Your task to perform on an android device: all mails in gmail Image 0: 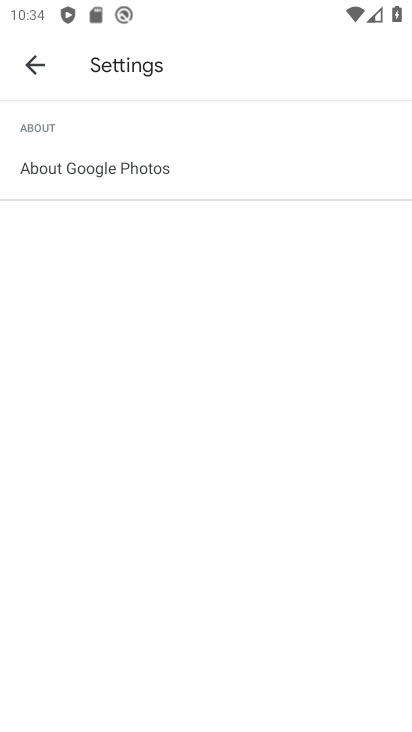
Step 0: click (34, 64)
Your task to perform on an android device: all mails in gmail Image 1: 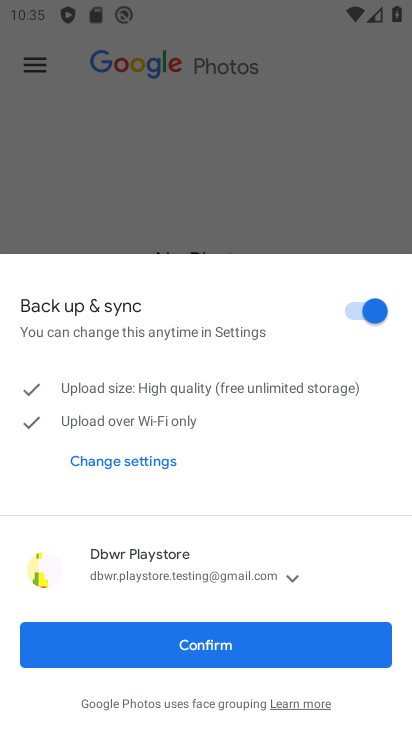
Step 1: press back button
Your task to perform on an android device: all mails in gmail Image 2: 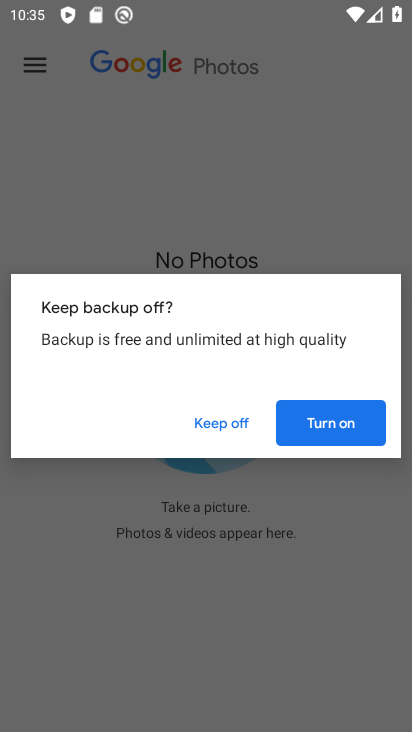
Step 2: press back button
Your task to perform on an android device: all mails in gmail Image 3: 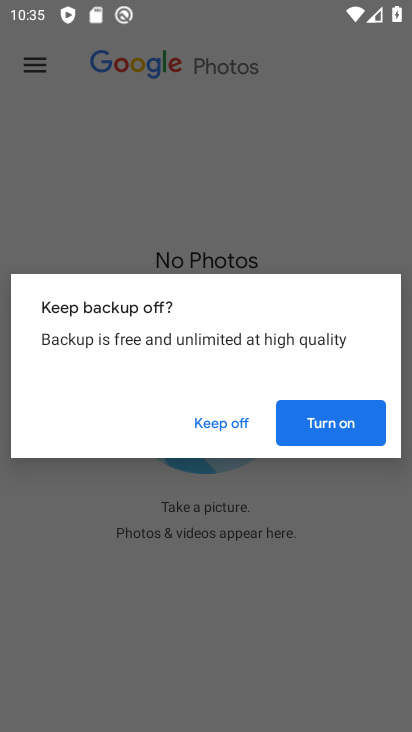
Step 3: press home button
Your task to perform on an android device: all mails in gmail Image 4: 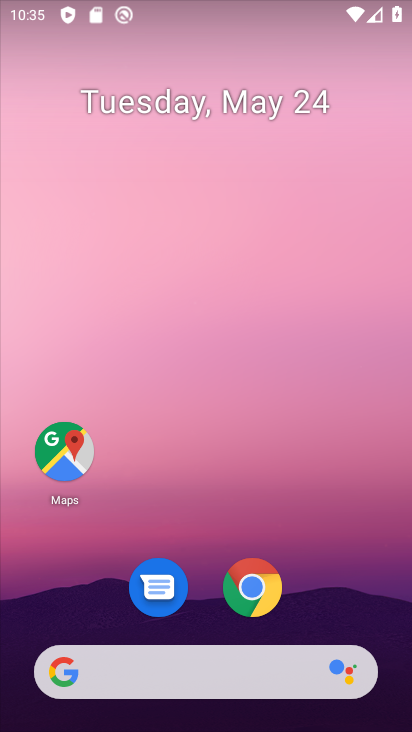
Step 4: drag from (328, 589) to (245, 52)
Your task to perform on an android device: all mails in gmail Image 5: 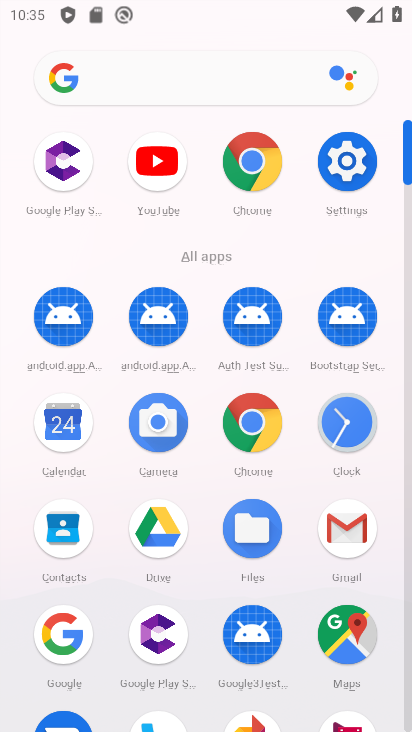
Step 5: drag from (16, 567) to (9, 210)
Your task to perform on an android device: all mails in gmail Image 6: 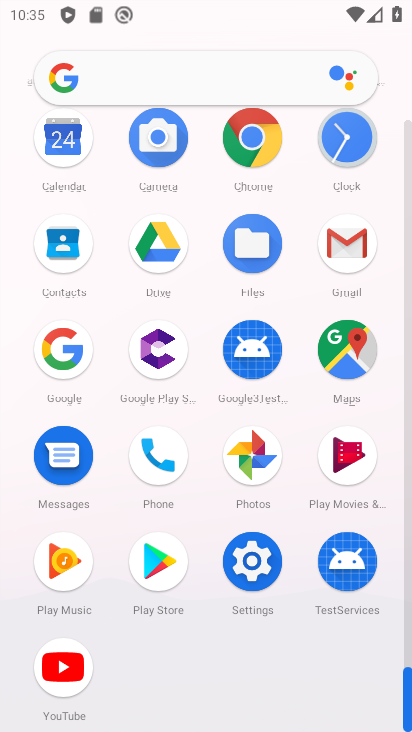
Step 6: click (347, 230)
Your task to perform on an android device: all mails in gmail Image 7: 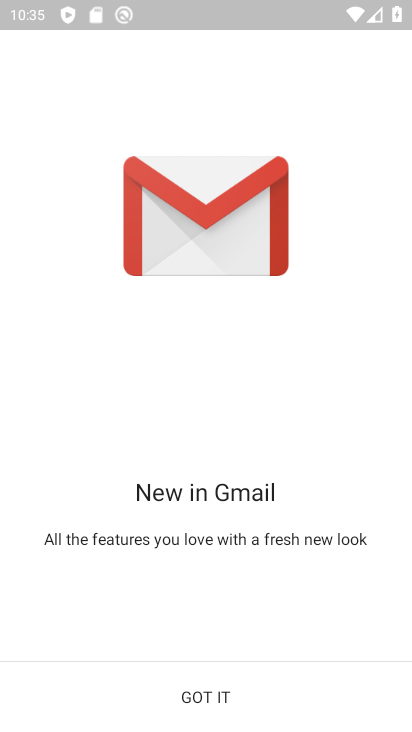
Step 7: click (209, 696)
Your task to perform on an android device: all mails in gmail Image 8: 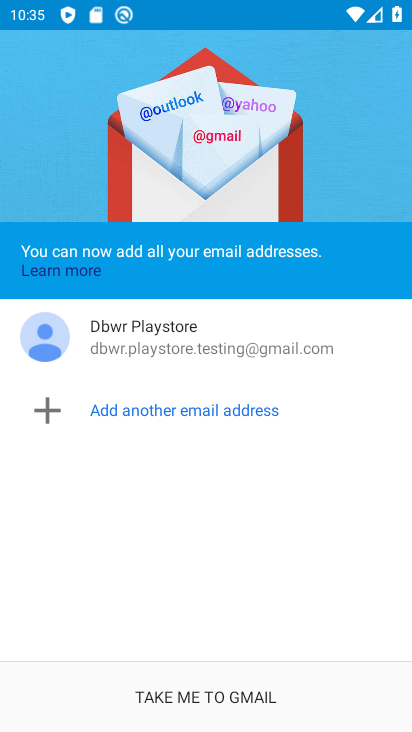
Step 8: click (184, 696)
Your task to perform on an android device: all mails in gmail Image 9: 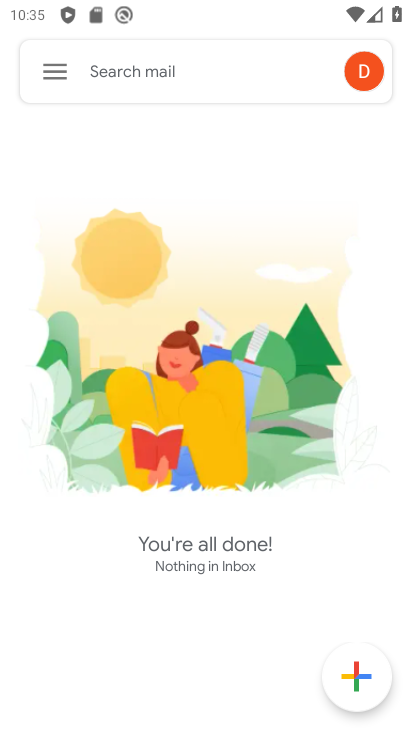
Step 9: click (57, 63)
Your task to perform on an android device: all mails in gmail Image 10: 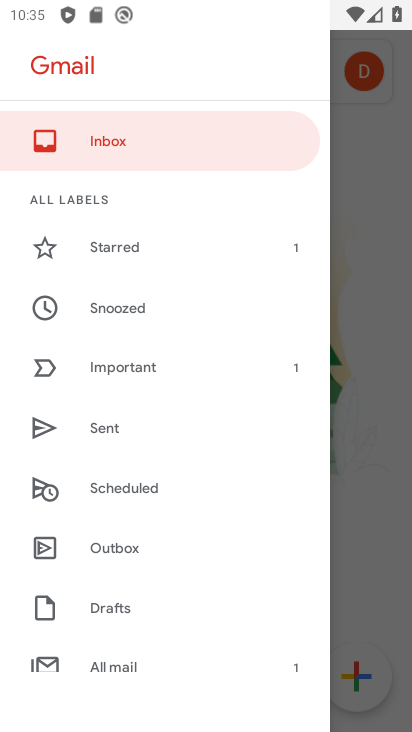
Step 10: drag from (152, 581) to (193, 304)
Your task to perform on an android device: all mails in gmail Image 11: 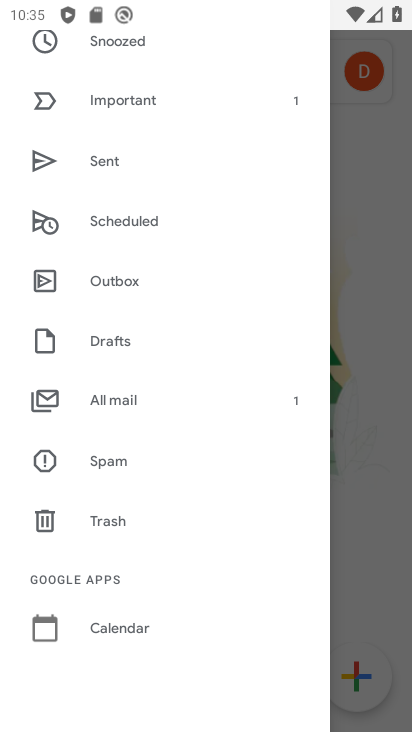
Step 11: click (113, 395)
Your task to perform on an android device: all mails in gmail Image 12: 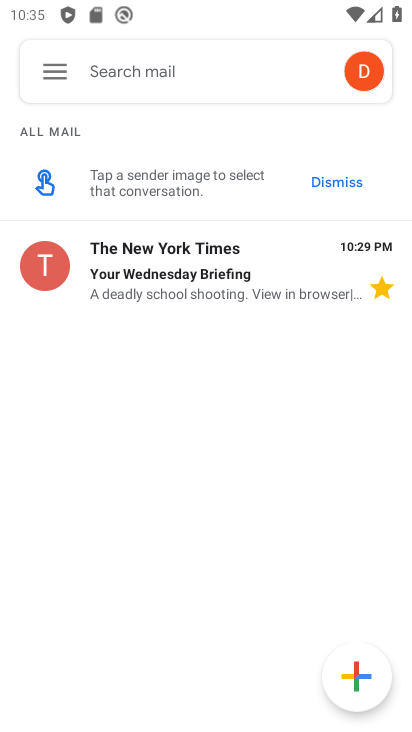
Step 12: task complete